Your task to perform on an android device: When is my next meeting? Image 0: 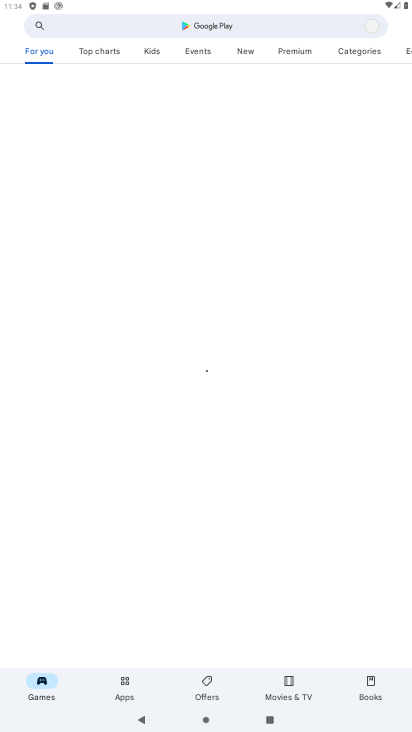
Step 0: press home button
Your task to perform on an android device: When is my next meeting? Image 1: 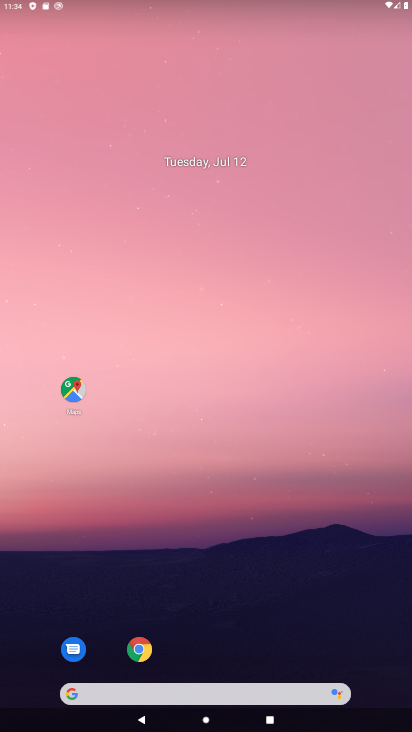
Step 1: drag from (257, 617) to (311, 156)
Your task to perform on an android device: When is my next meeting? Image 2: 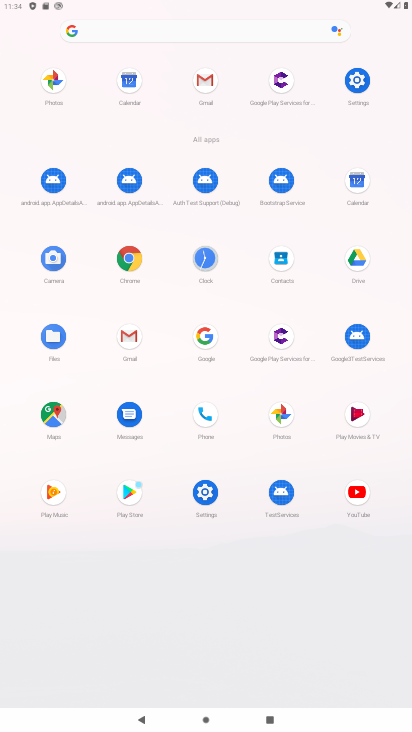
Step 2: click (355, 184)
Your task to perform on an android device: When is my next meeting? Image 3: 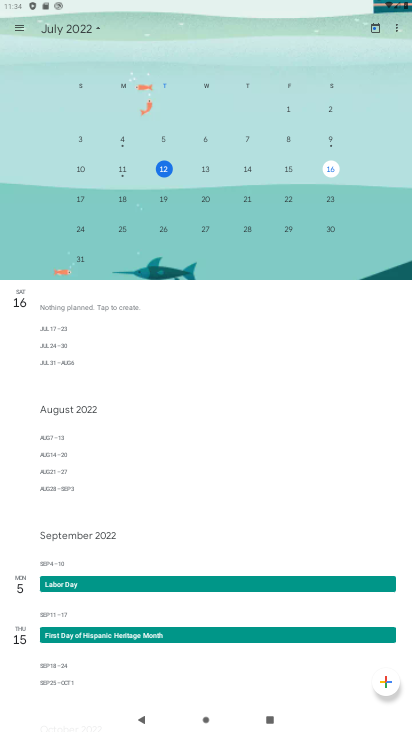
Step 3: click (160, 169)
Your task to perform on an android device: When is my next meeting? Image 4: 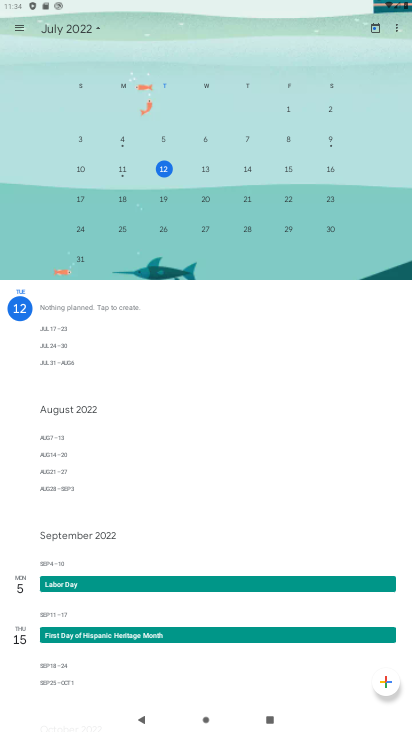
Step 4: task complete